Your task to perform on an android device: turn on bluetooth scan Image 0: 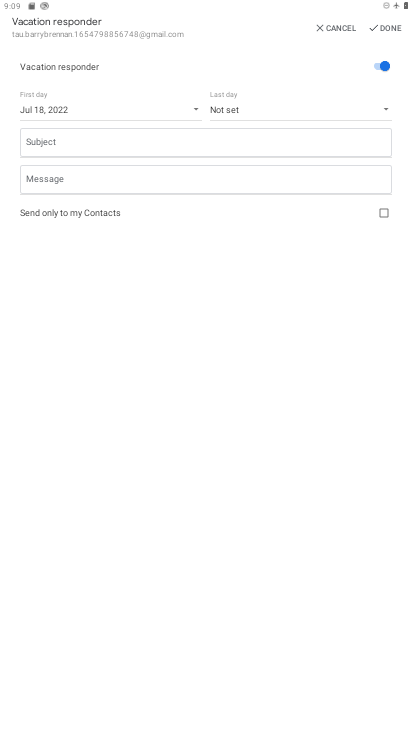
Step 0: press home button
Your task to perform on an android device: turn on bluetooth scan Image 1: 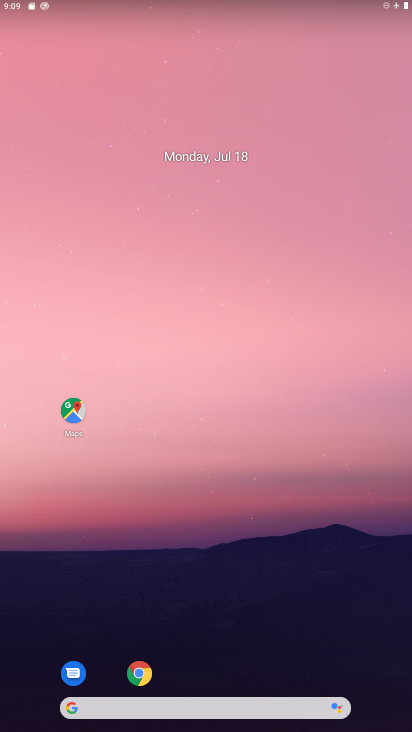
Step 1: drag from (235, 639) to (270, 126)
Your task to perform on an android device: turn on bluetooth scan Image 2: 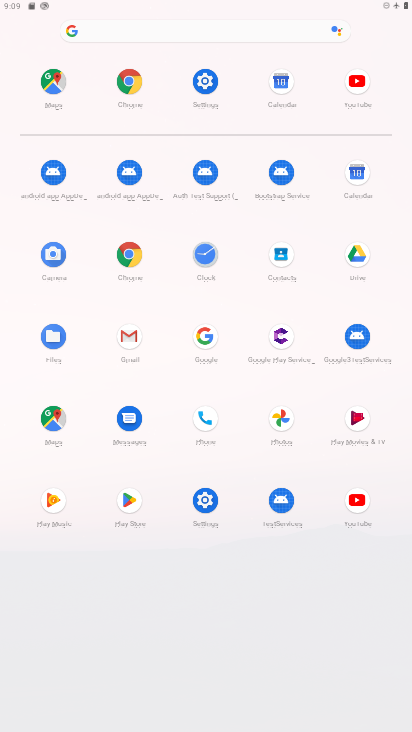
Step 2: click (213, 84)
Your task to perform on an android device: turn on bluetooth scan Image 3: 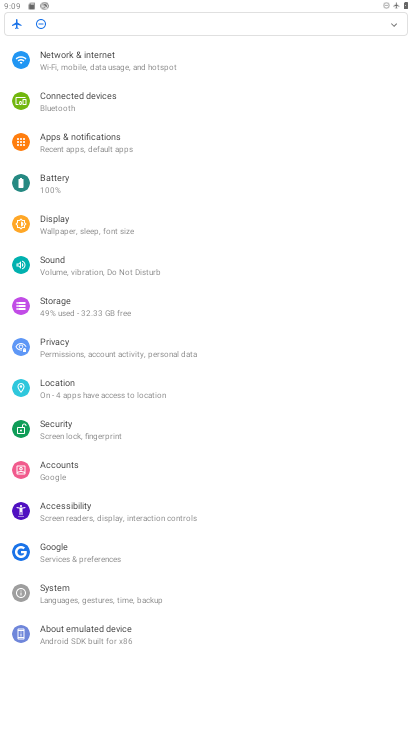
Step 3: click (62, 390)
Your task to perform on an android device: turn on bluetooth scan Image 4: 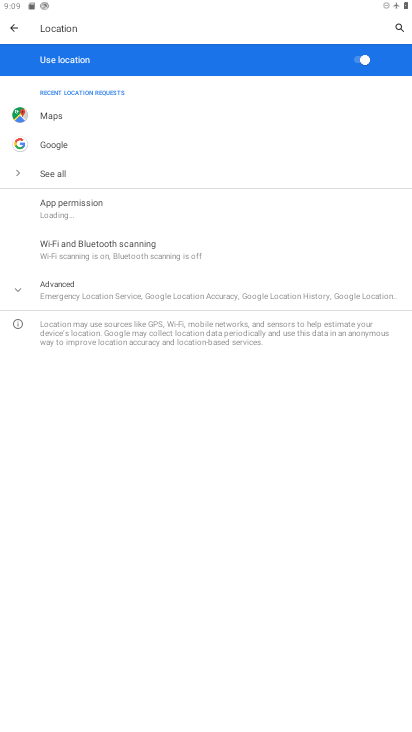
Step 4: click (115, 247)
Your task to perform on an android device: turn on bluetooth scan Image 5: 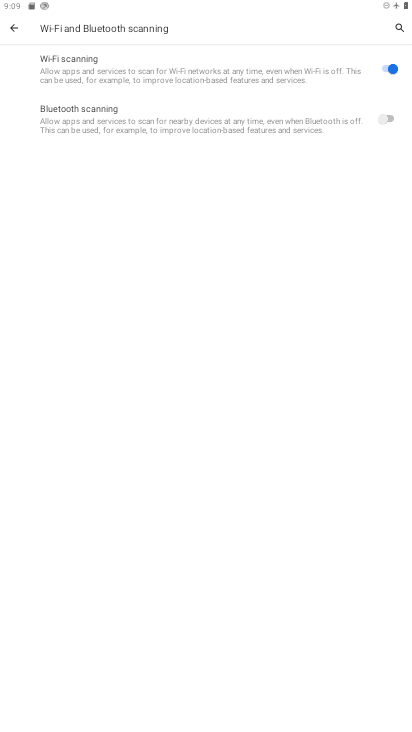
Step 5: click (387, 116)
Your task to perform on an android device: turn on bluetooth scan Image 6: 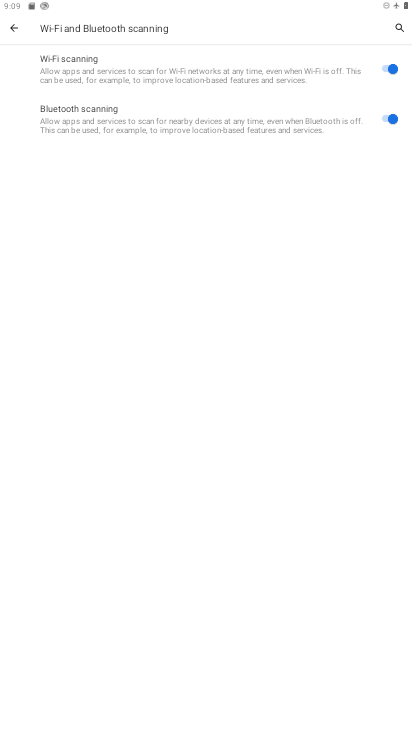
Step 6: task complete